Your task to perform on an android device: empty trash in the gmail app Image 0: 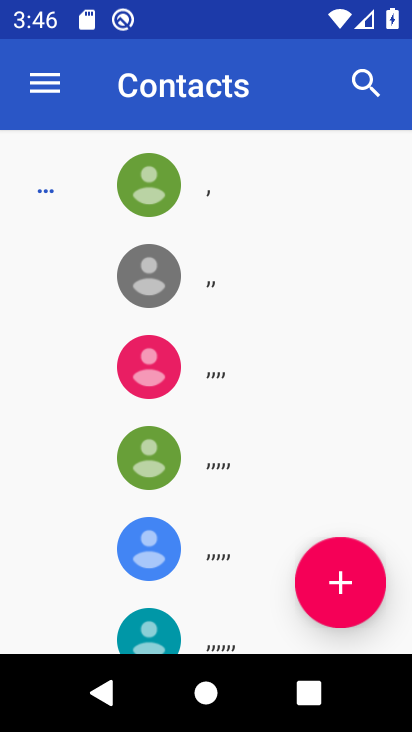
Step 0: press home button
Your task to perform on an android device: empty trash in the gmail app Image 1: 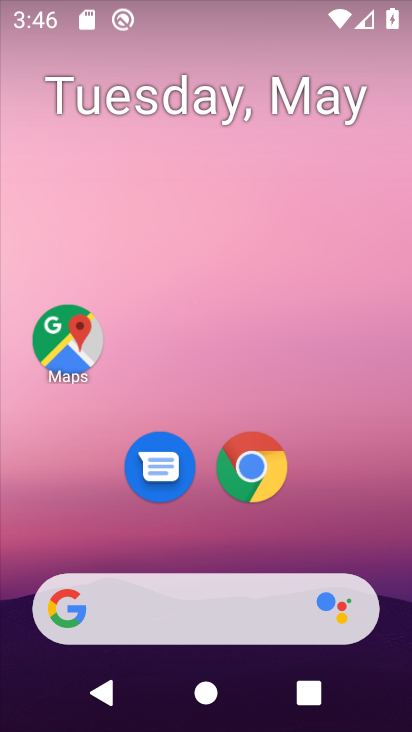
Step 1: drag from (261, 552) to (246, 329)
Your task to perform on an android device: empty trash in the gmail app Image 2: 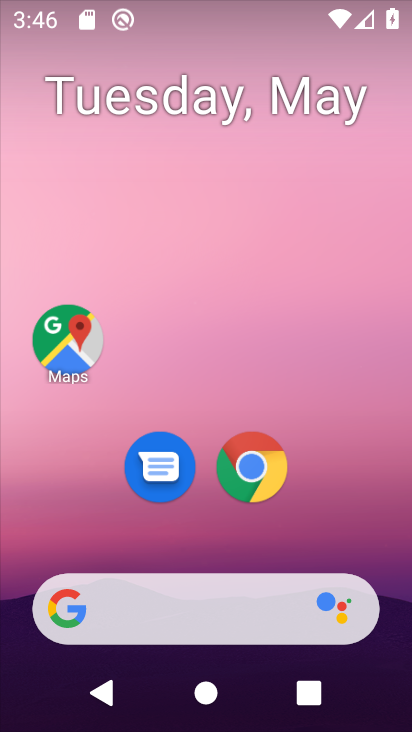
Step 2: drag from (185, 557) to (182, 60)
Your task to perform on an android device: empty trash in the gmail app Image 3: 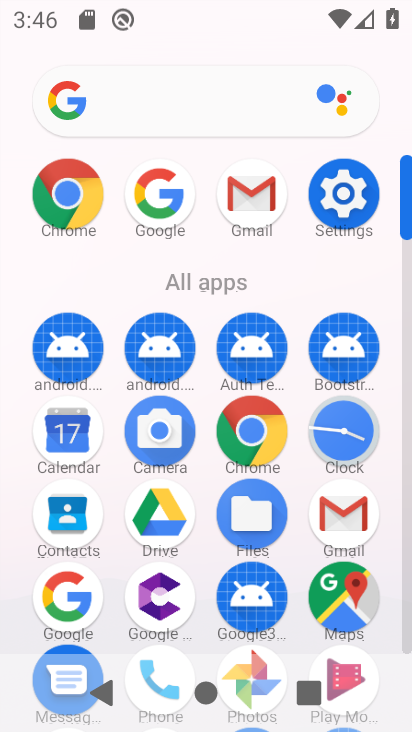
Step 3: click (241, 197)
Your task to perform on an android device: empty trash in the gmail app Image 4: 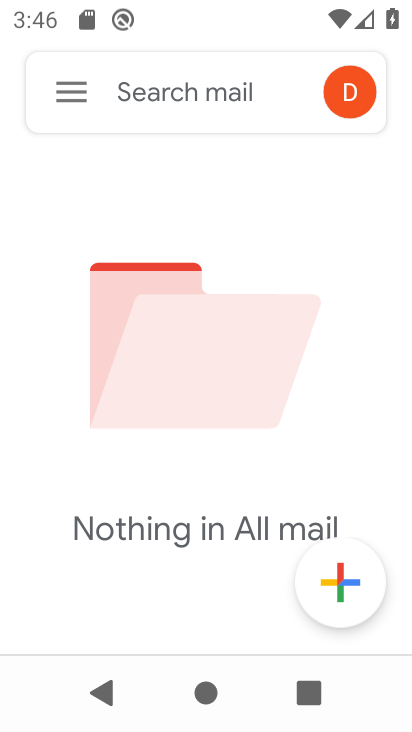
Step 4: click (69, 113)
Your task to perform on an android device: empty trash in the gmail app Image 5: 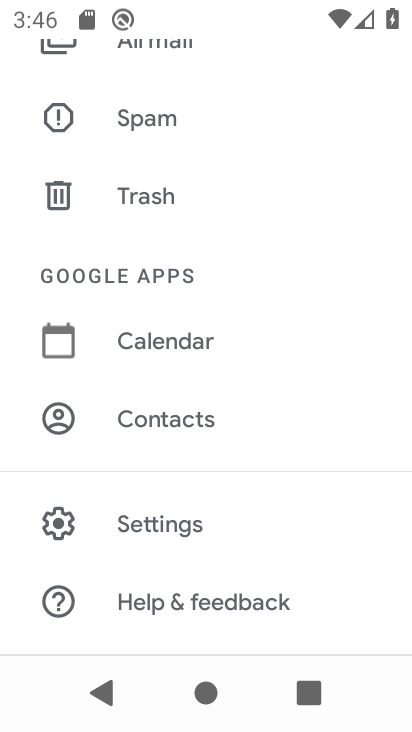
Step 5: click (139, 189)
Your task to perform on an android device: empty trash in the gmail app Image 6: 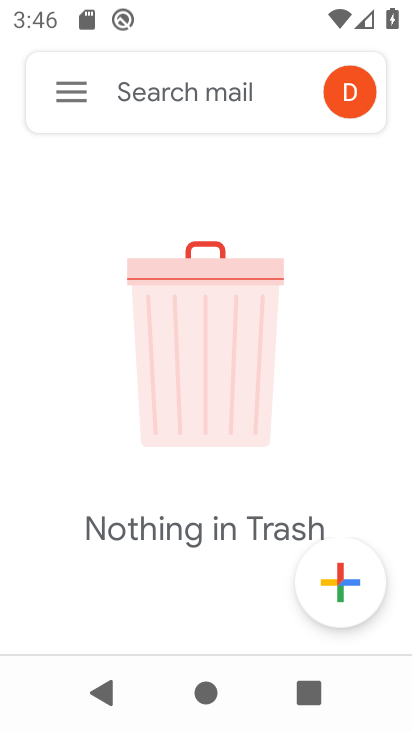
Step 6: task complete